Your task to perform on an android device: Search for the best Nike running shoes on Nike.com Image 0: 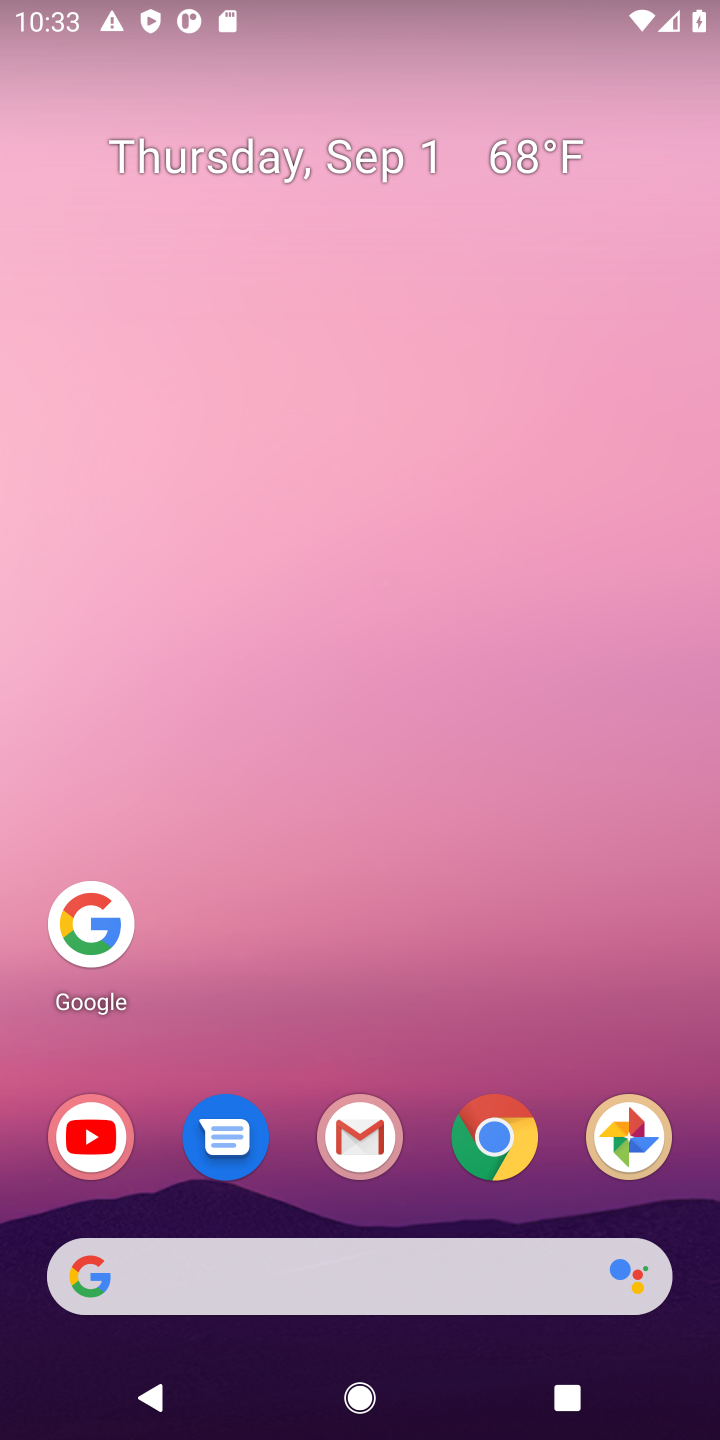
Step 0: click (198, 1260)
Your task to perform on an android device: Search for the best Nike running shoes on Nike.com Image 1: 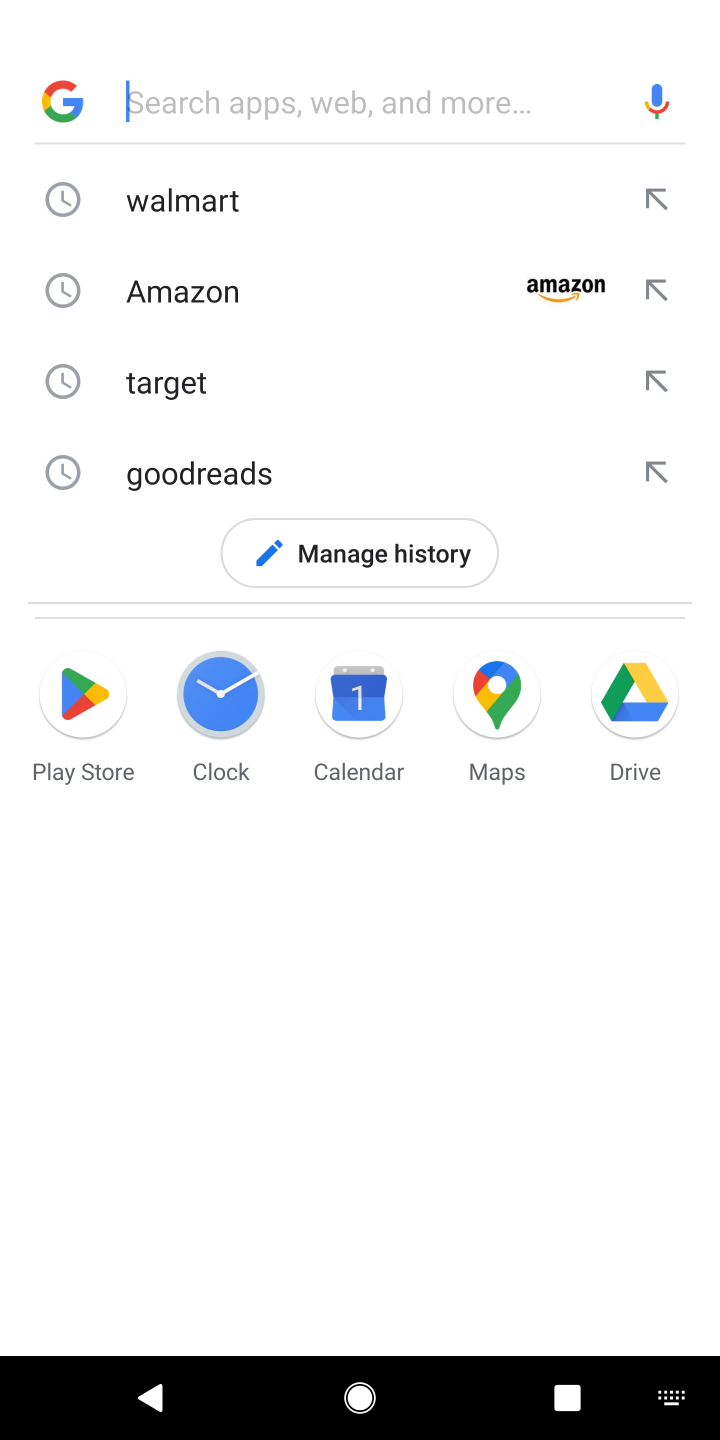
Step 1: type "nike.com"
Your task to perform on an android device: Search for the best Nike running shoes on Nike.com Image 2: 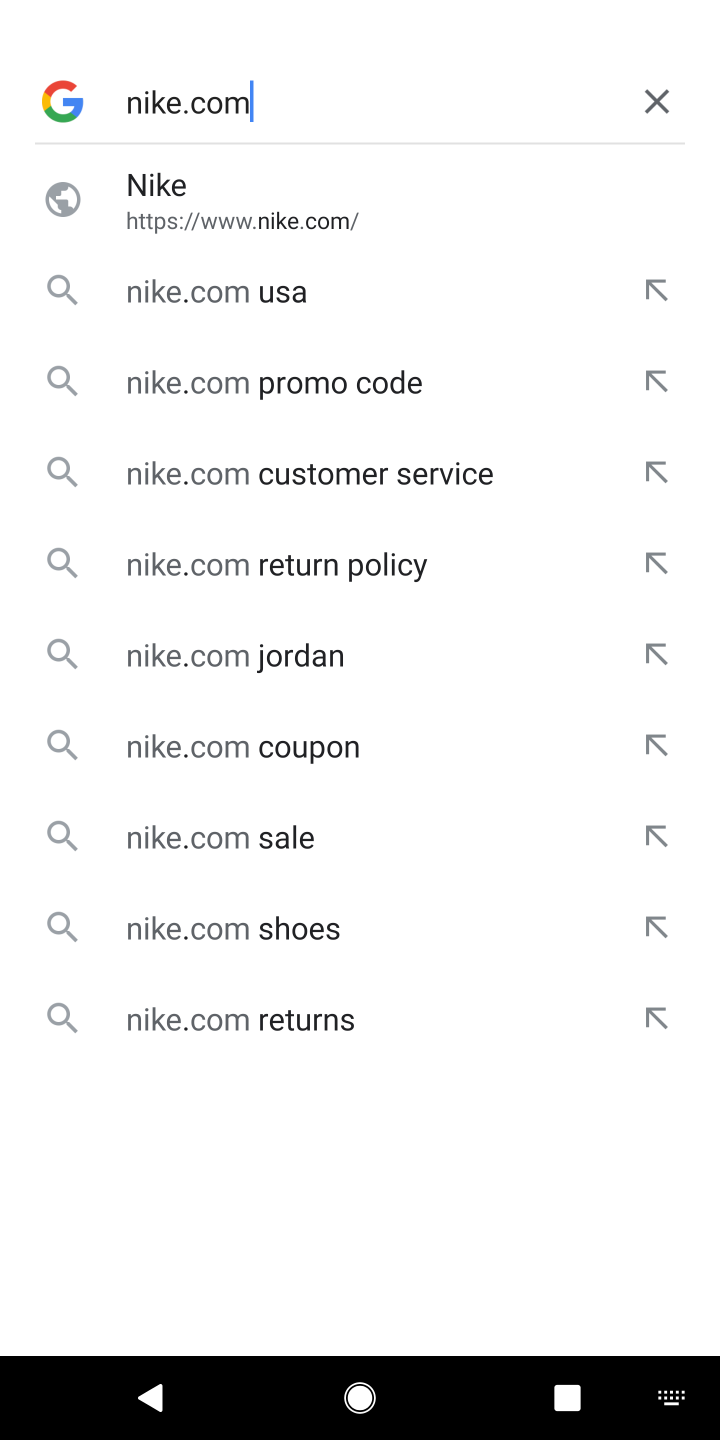
Step 2: click (138, 183)
Your task to perform on an android device: Search for the best Nike running shoes on Nike.com Image 3: 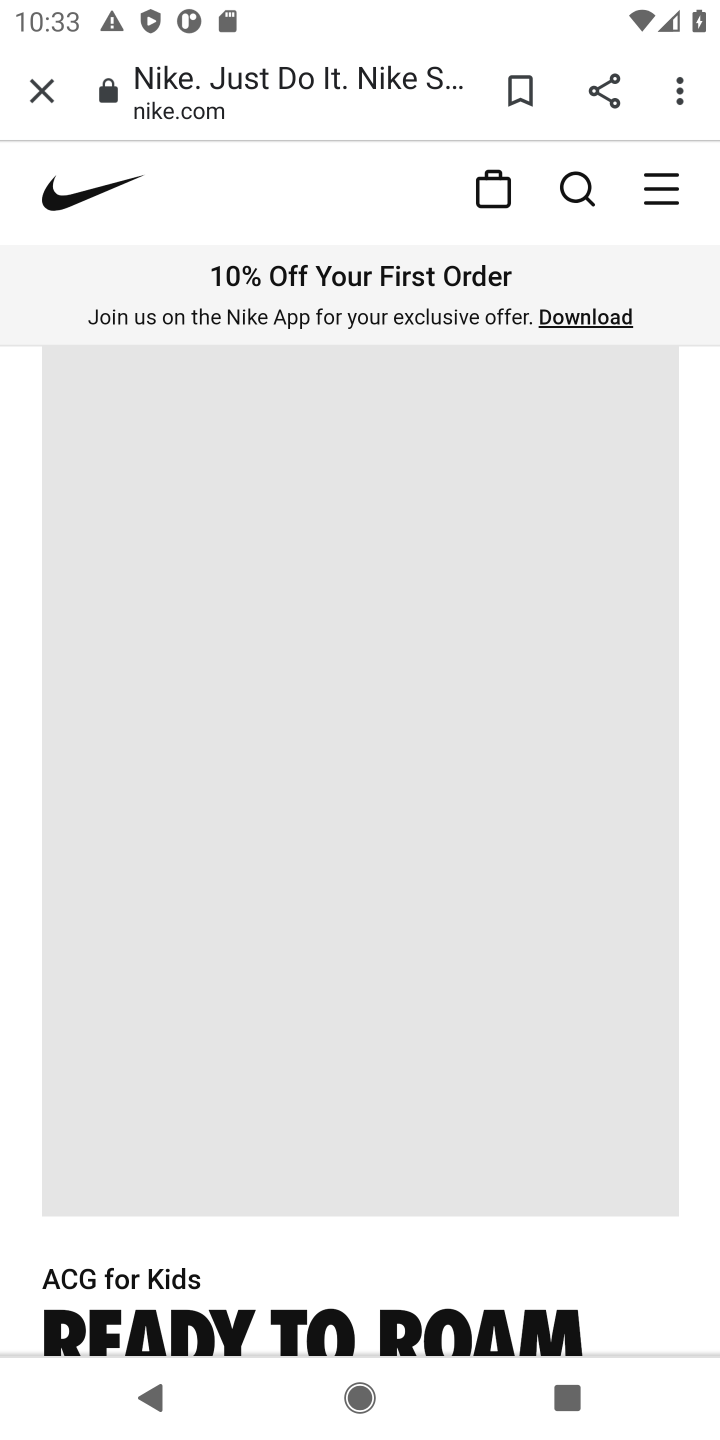
Step 3: click (571, 192)
Your task to perform on an android device: Search for the best Nike running shoes on Nike.com Image 4: 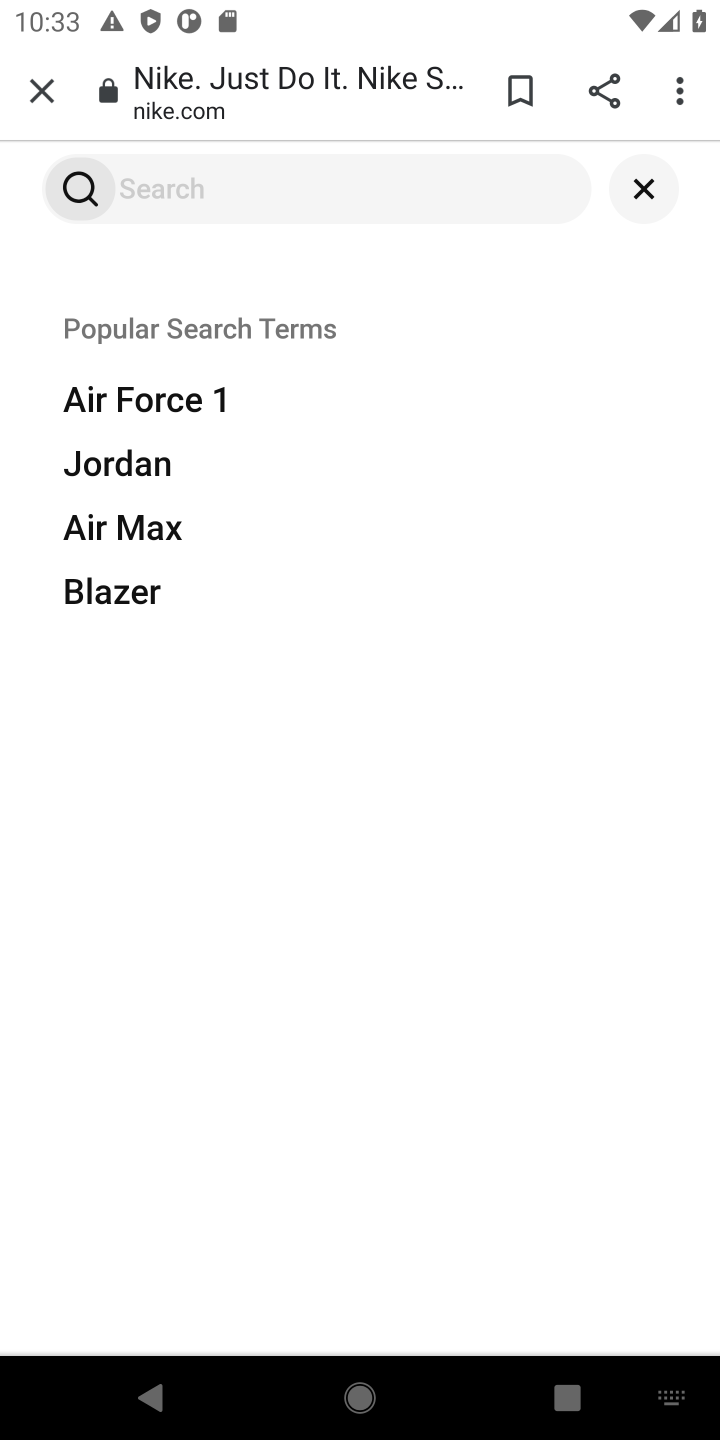
Step 4: click (298, 166)
Your task to perform on an android device: Search for the best Nike running shoes on Nike.com Image 5: 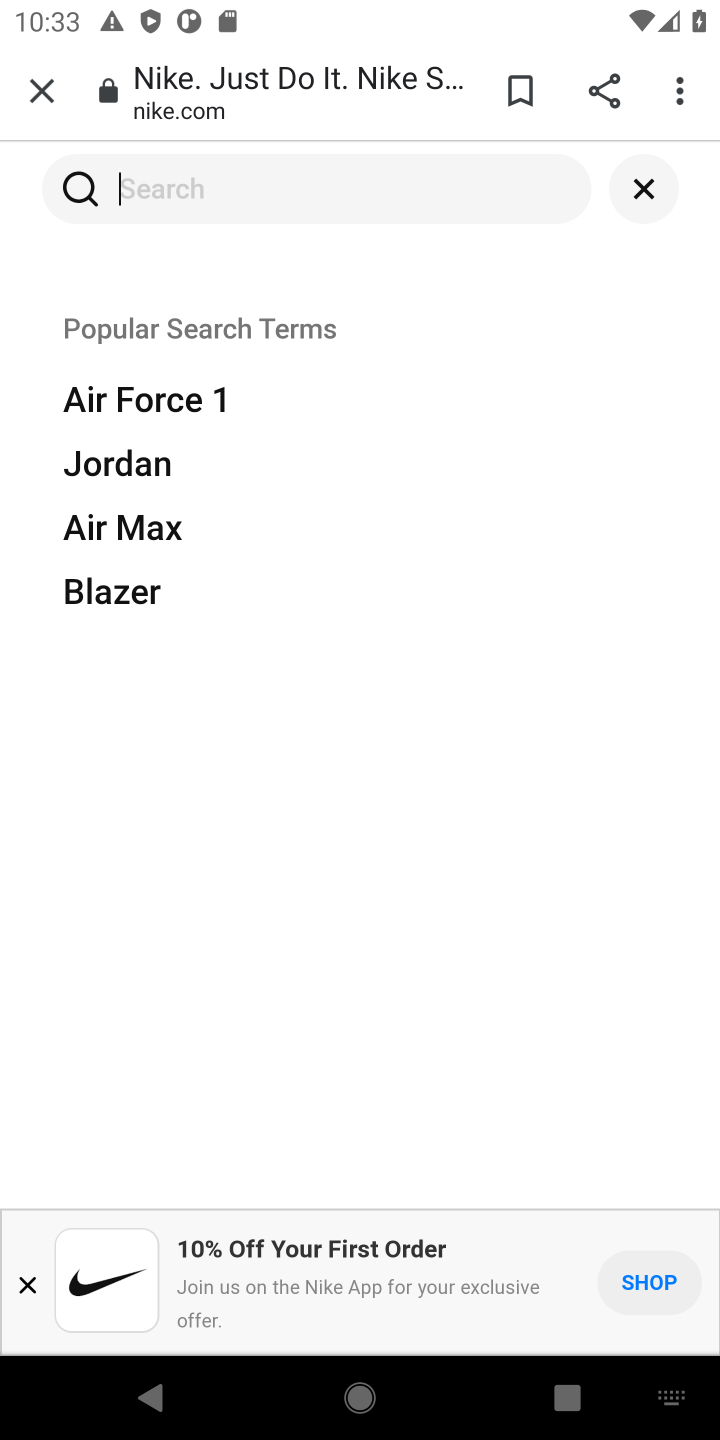
Step 5: type "best running shoes"
Your task to perform on an android device: Search for the best Nike running shoes on Nike.com Image 6: 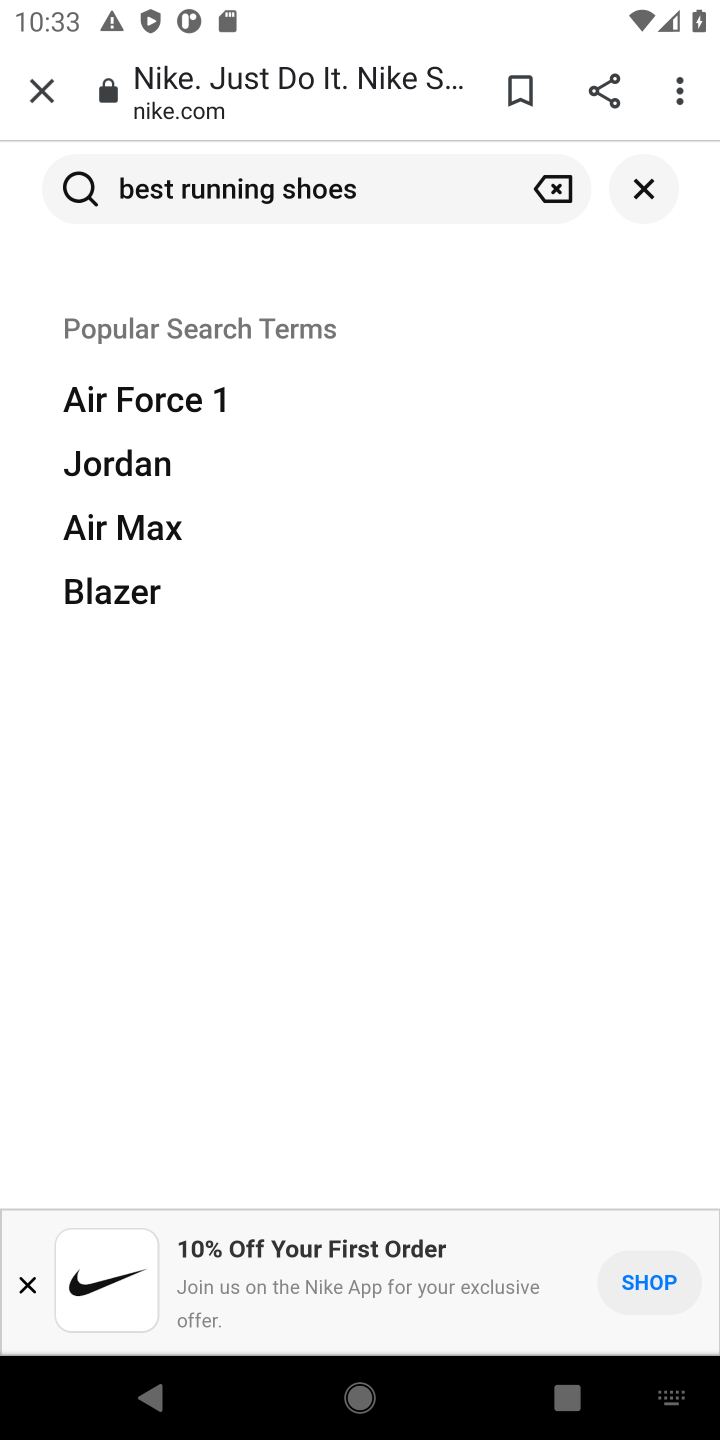
Step 6: click (79, 181)
Your task to perform on an android device: Search for the best Nike running shoes on Nike.com Image 7: 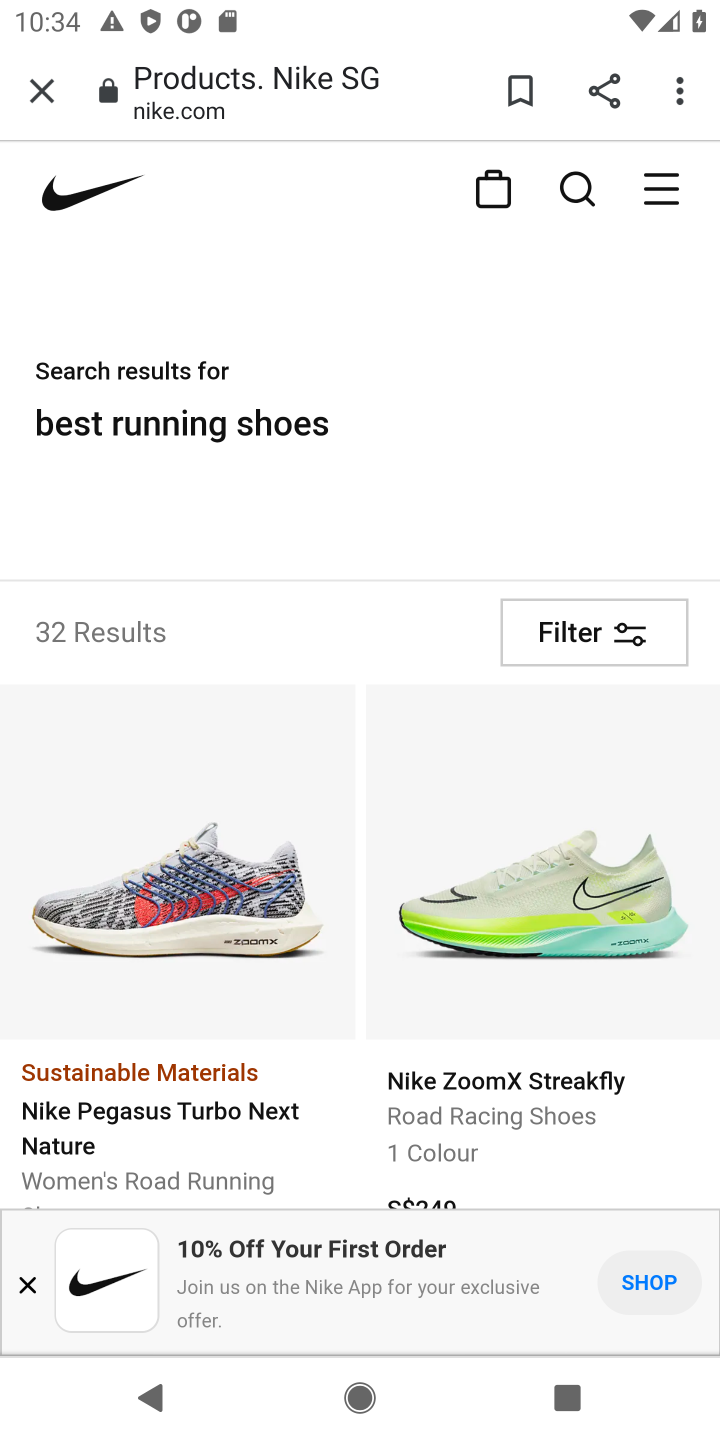
Step 7: task complete